Your task to perform on an android device: Open network settings Image 0: 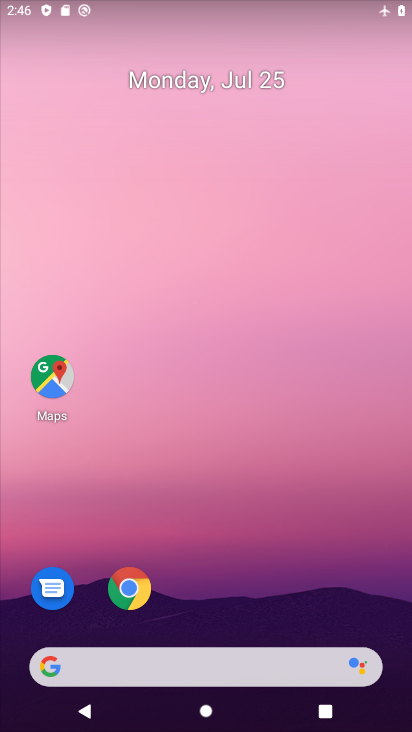
Step 0: drag from (225, 726) to (204, 96)
Your task to perform on an android device: Open network settings Image 1: 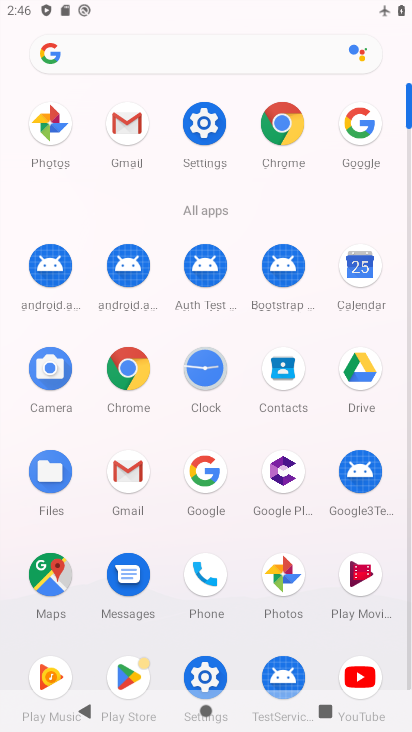
Step 1: click (205, 121)
Your task to perform on an android device: Open network settings Image 2: 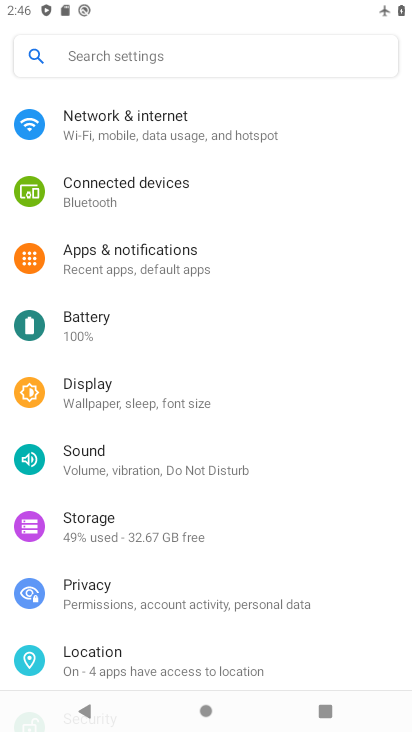
Step 2: click (102, 130)
Your task to perform on an android device: Open network settings Image 3: 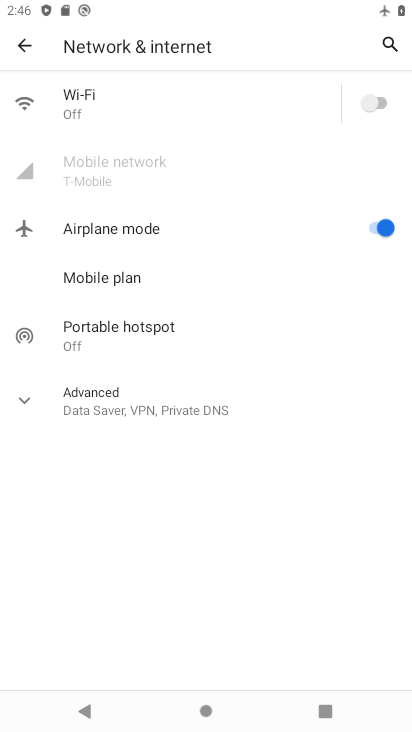
Step 3: task complete